Your task to perform on an android device: move a message to another label in the gmail app Image 0: 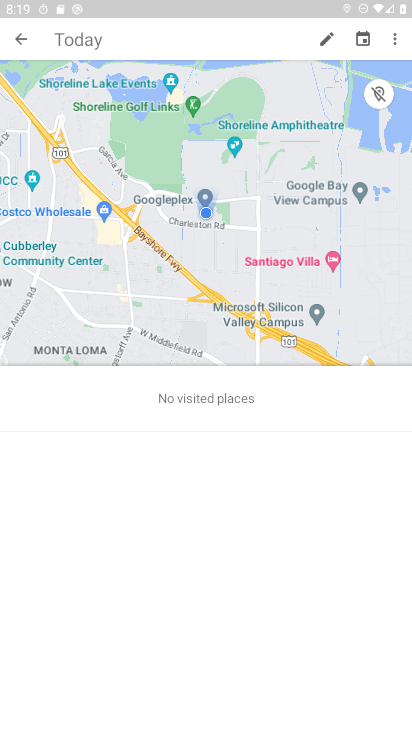
Step 0: press home button
Your task to perform on an android device: move a message to another label in the gmail app Image 1: 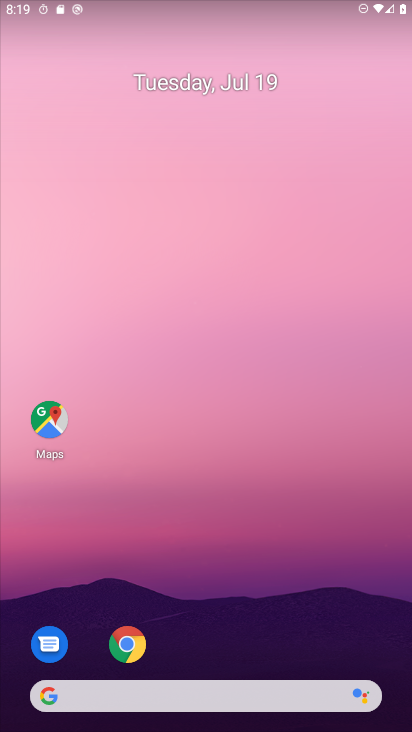
Step 1: drag from (18, 691) to (150, 329)
Your task to perform on an android device: move a message to another label in the gmail app Image 2: 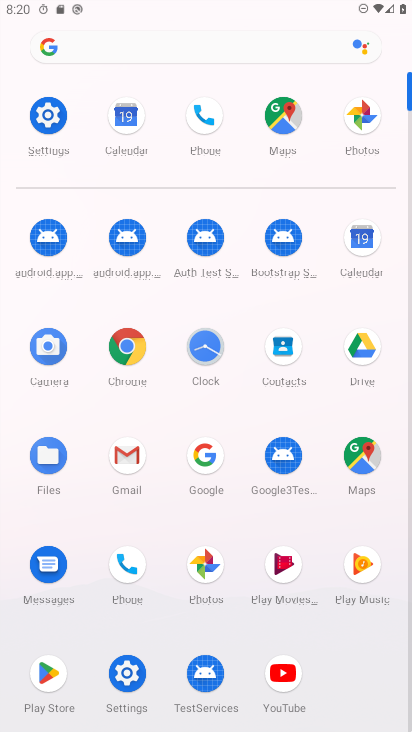
Step 2: click (138, 463)
Your task to perform on an android device: move a message to another label in the gmail app Image 3: 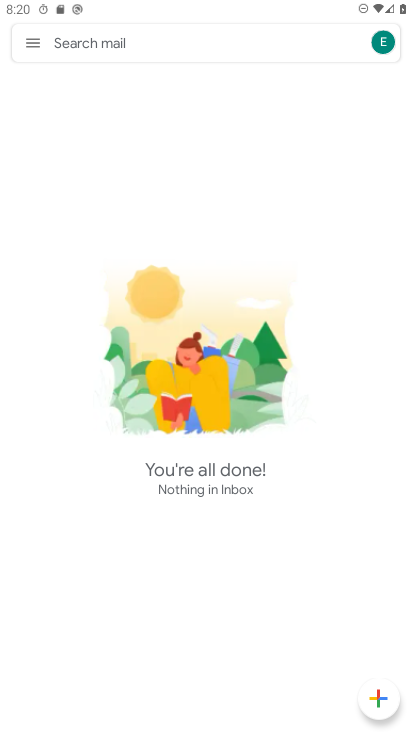
Step 3: click (25, 41)
Your task to perform on an android device: move a message to another label in the gmail app Image 4: 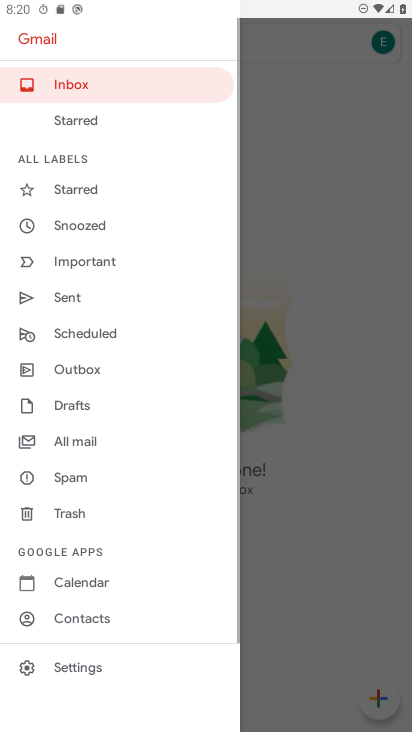
Step 4: click (106, 79)
Your task to perform on an android device: move a message to another label in the gmail app Image 5: 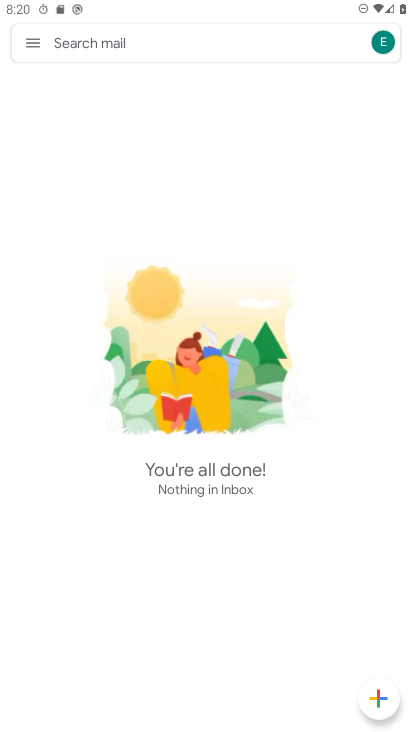
Step 5: task complete